Your task to perform on an android device: install app "Google Keep" Image 0: 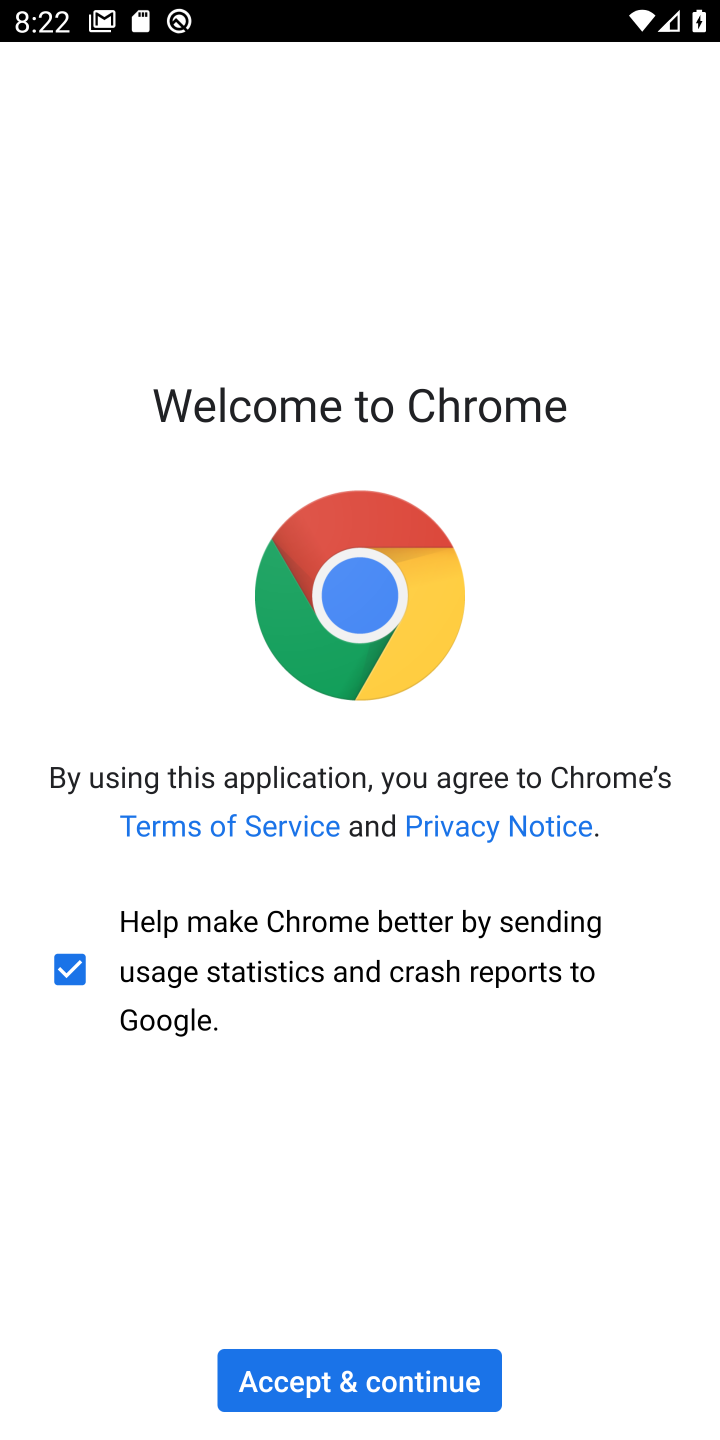
Step 0: press home button
Your task to perform on an android device: install app "Google Keep" Image 1: 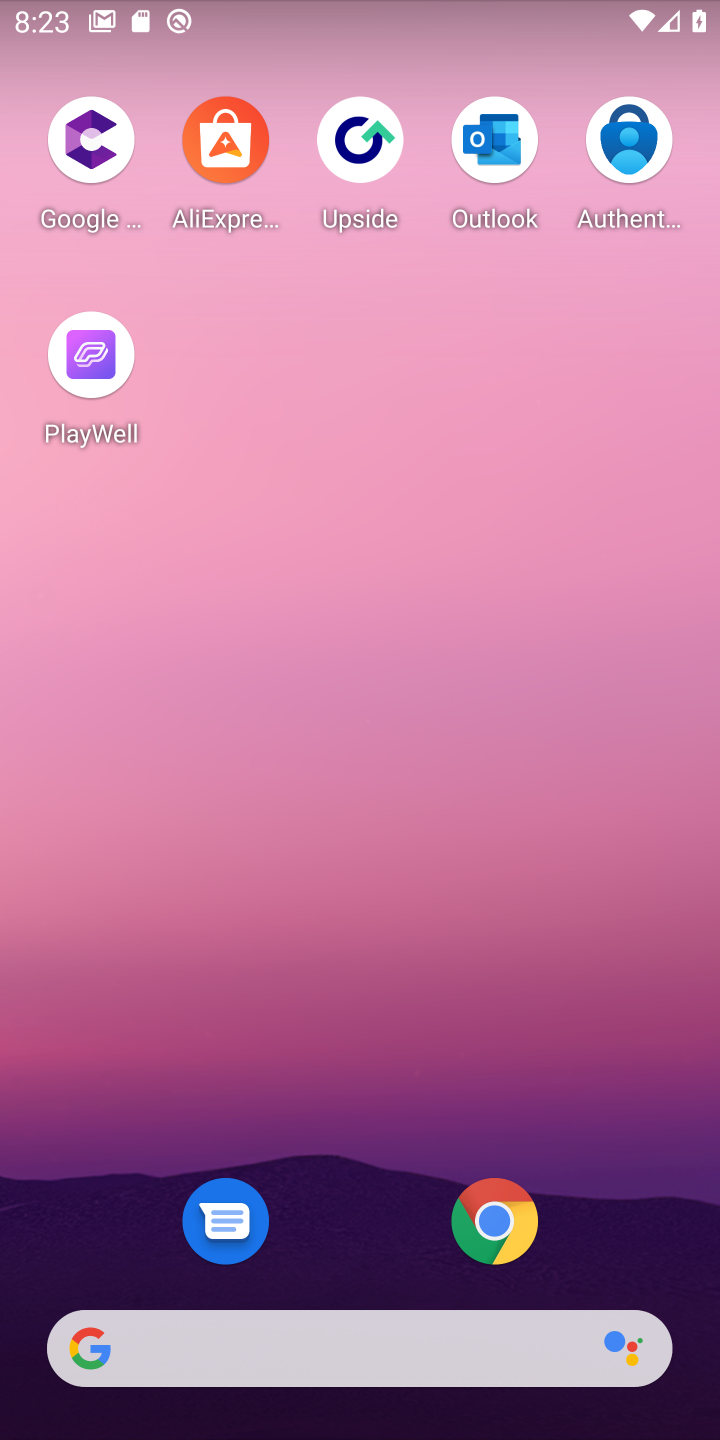
Step 1: drag from (405, 1015) to (394, 317)
Your task to perform on an android device: install app "Google Keep" Image 2: 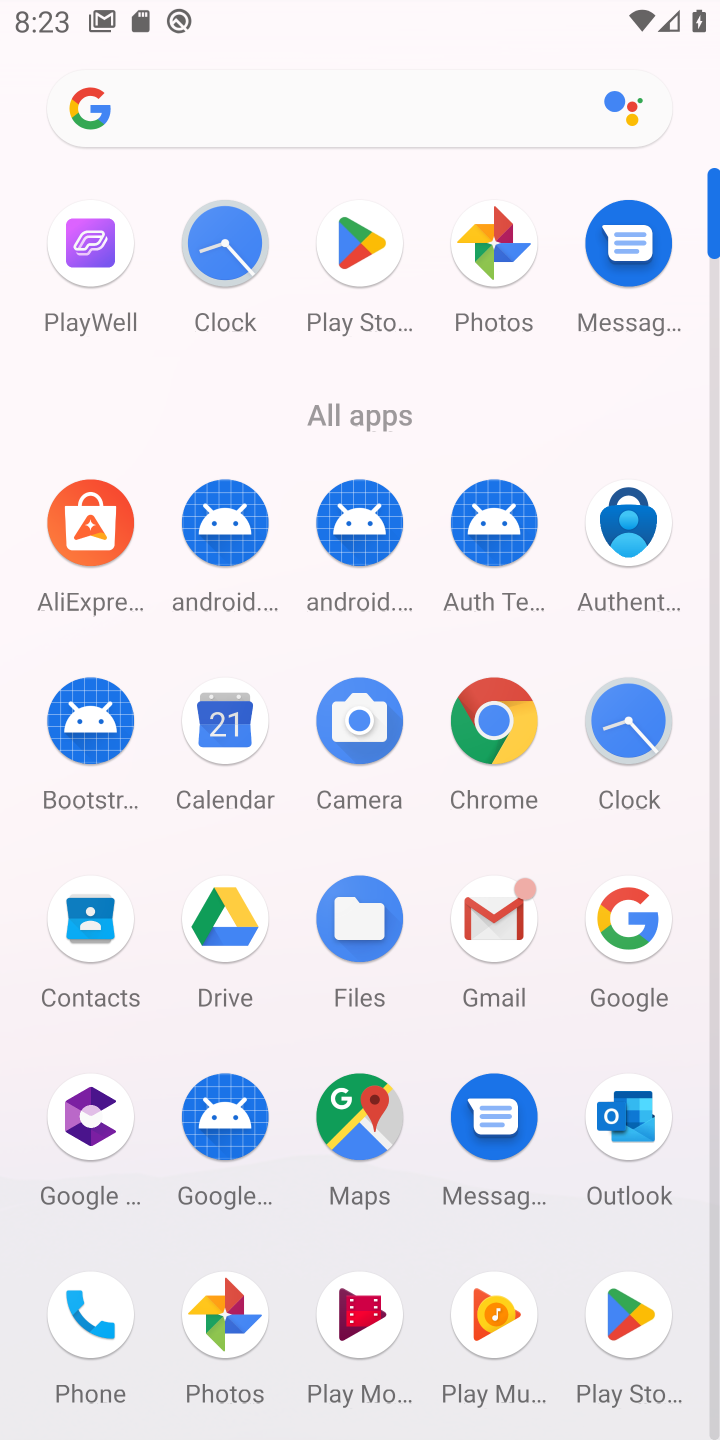
Step 2: click (638, 1302)
Your task to perform on an android device: install app "Google Keep" Image 3: 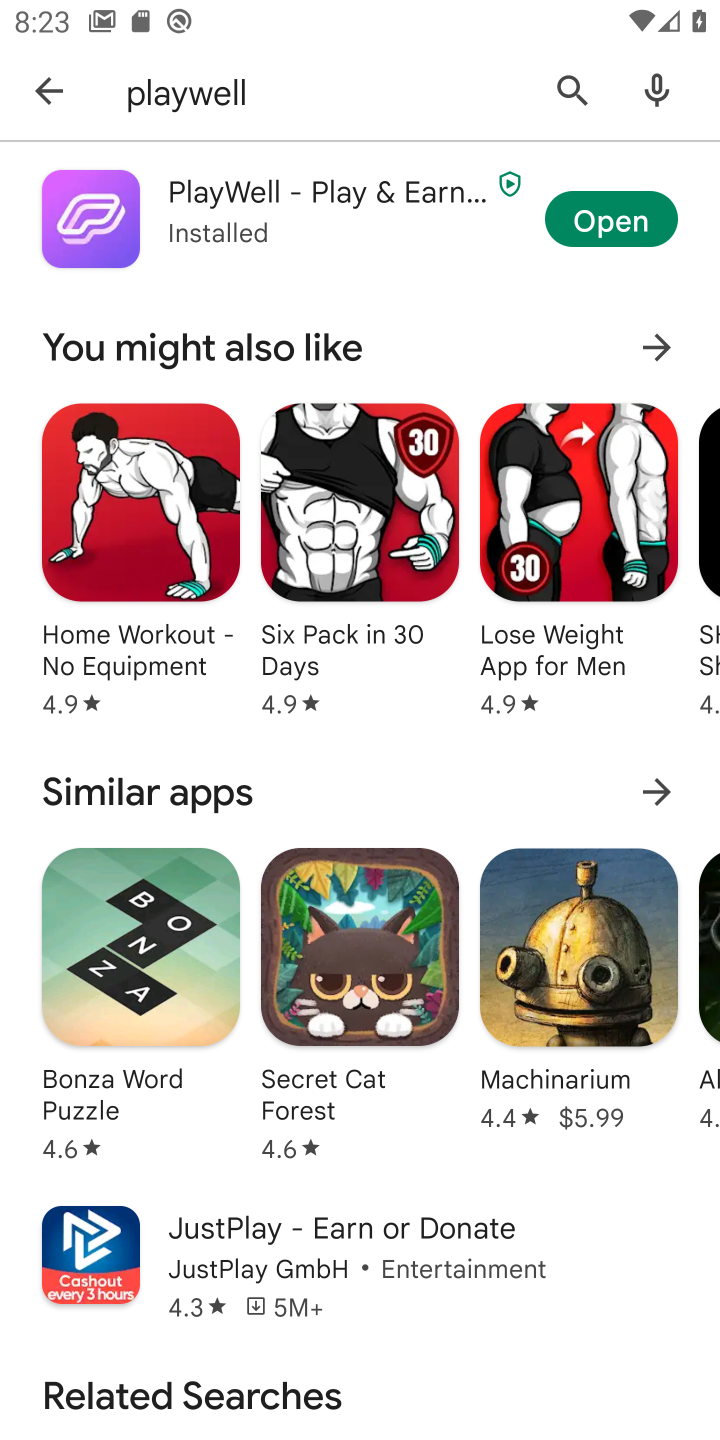
Step 3: click (559, 85)
Your task to perform on an android device: install app "Google Keep" Image 4: 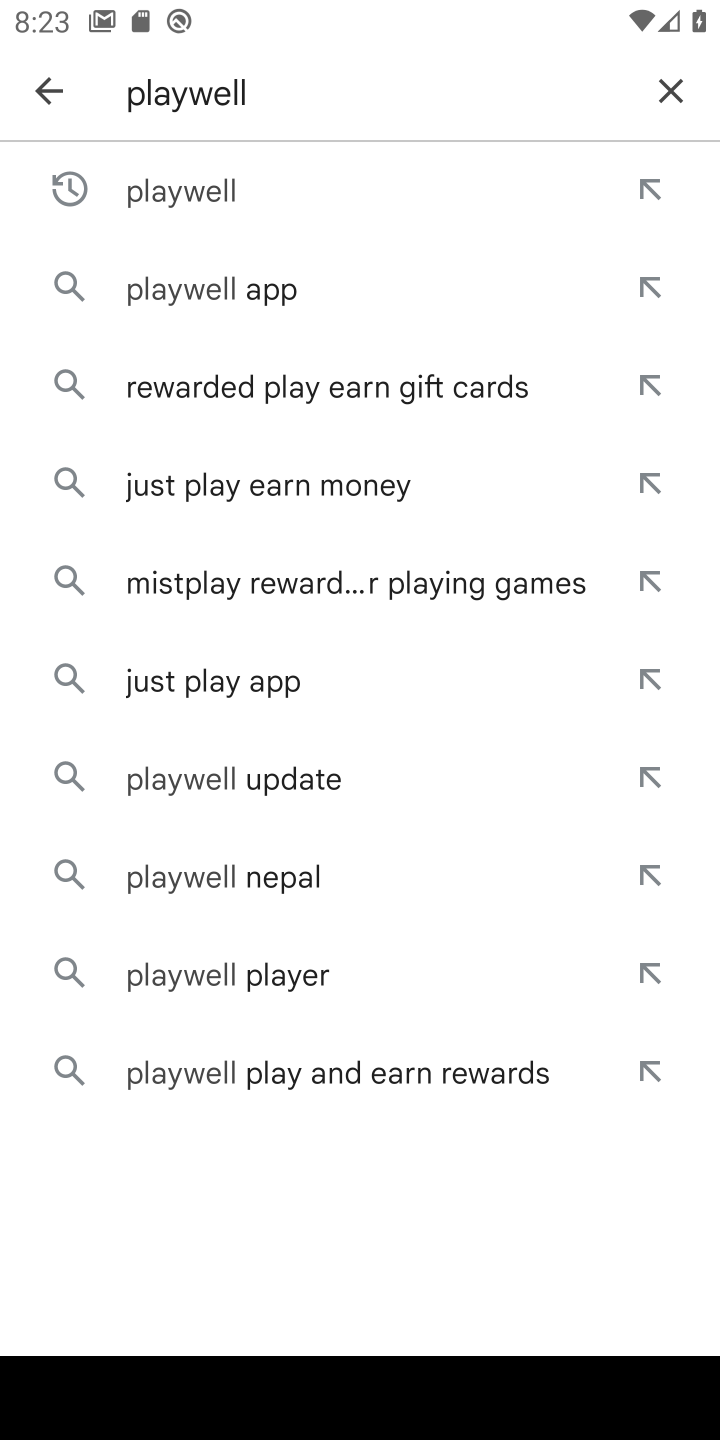
Step 4: click (667, 91)
Your task to perform on an android device: install app "Google Keep" Image 5: 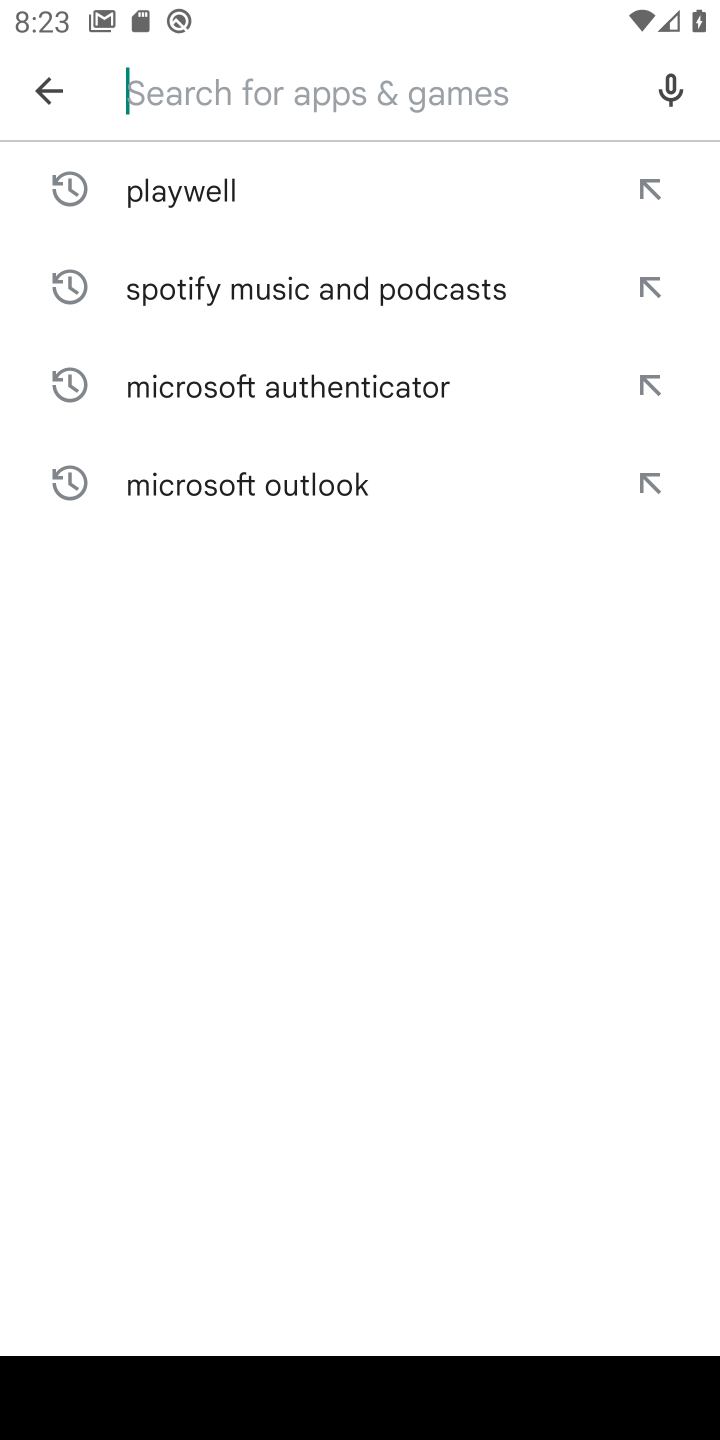
Step 5: type "Google Keep"
Your task to perform on an android device: install app "Google Keep" Image 6: 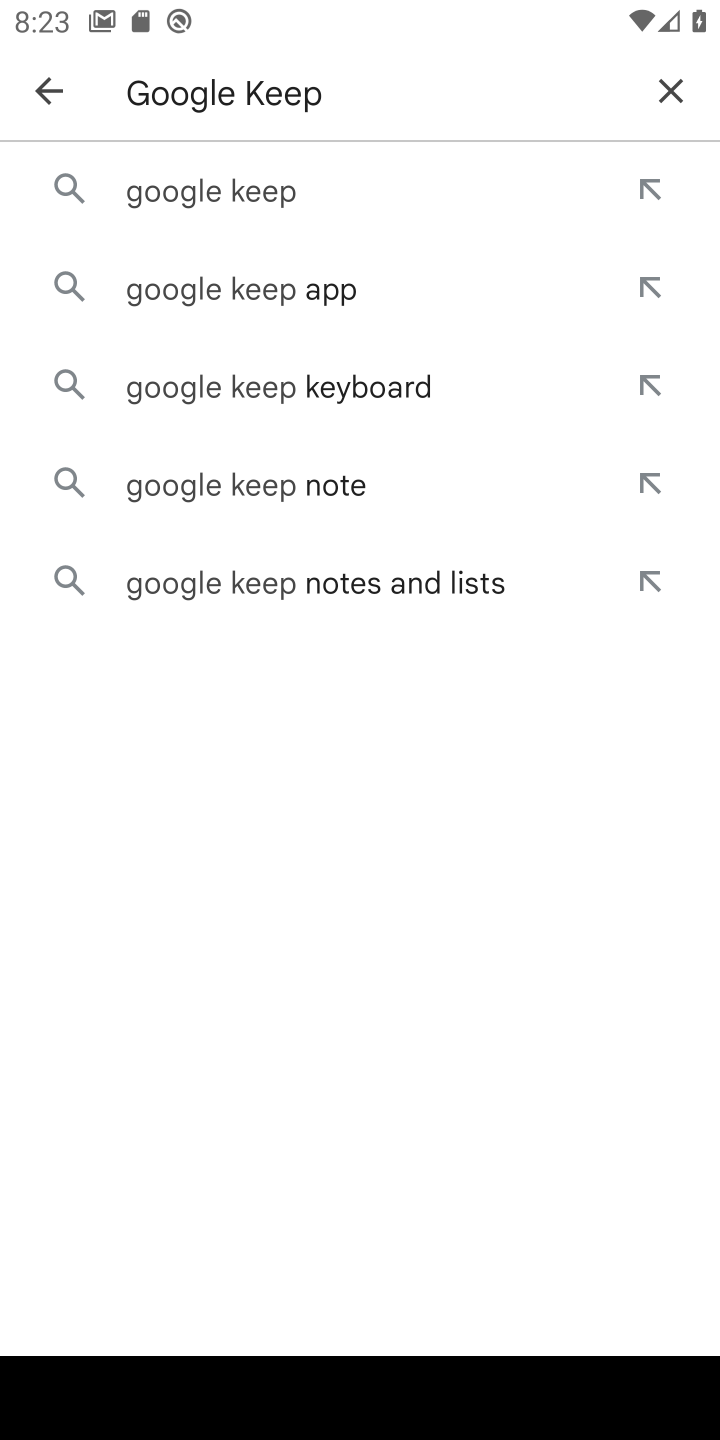
Step 6: click (197, 199)
Your task to perform on an android device: install app "Google Keep" Image 7: 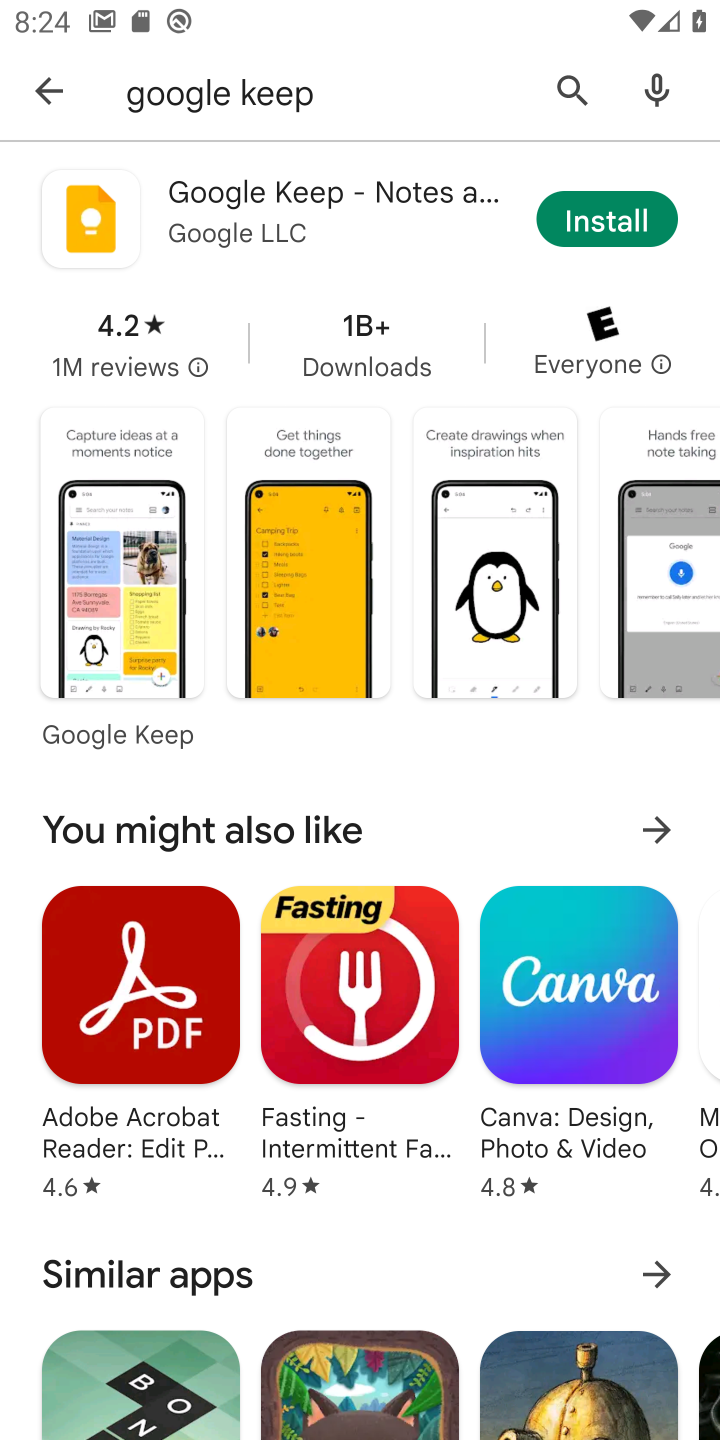
Step 7: click (589, 217)
Your task to perform on an android device: install app "Google Keep" Image 8: 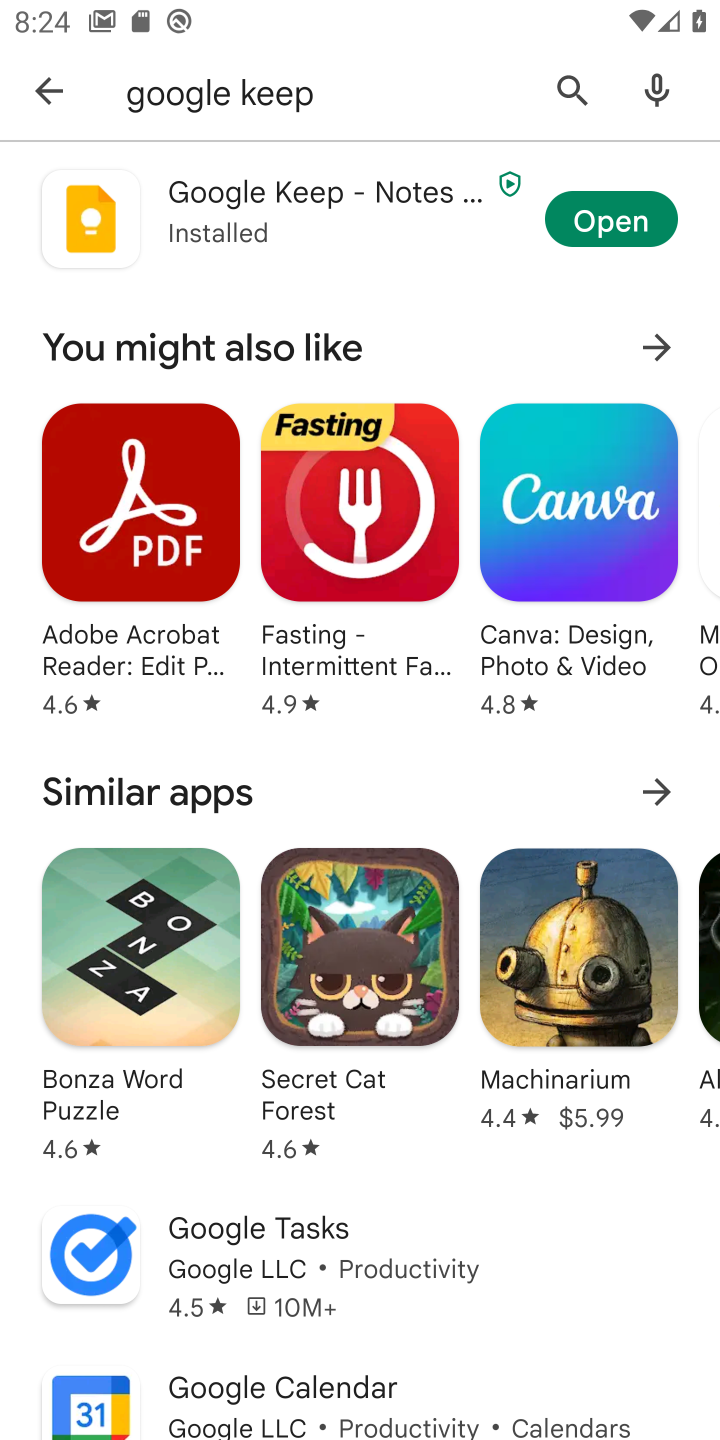
Step 8: task complete